Your task to perform on an android device: Clear the cart on ebay.com. Add macbook to the cart on ebay.com Image 0: 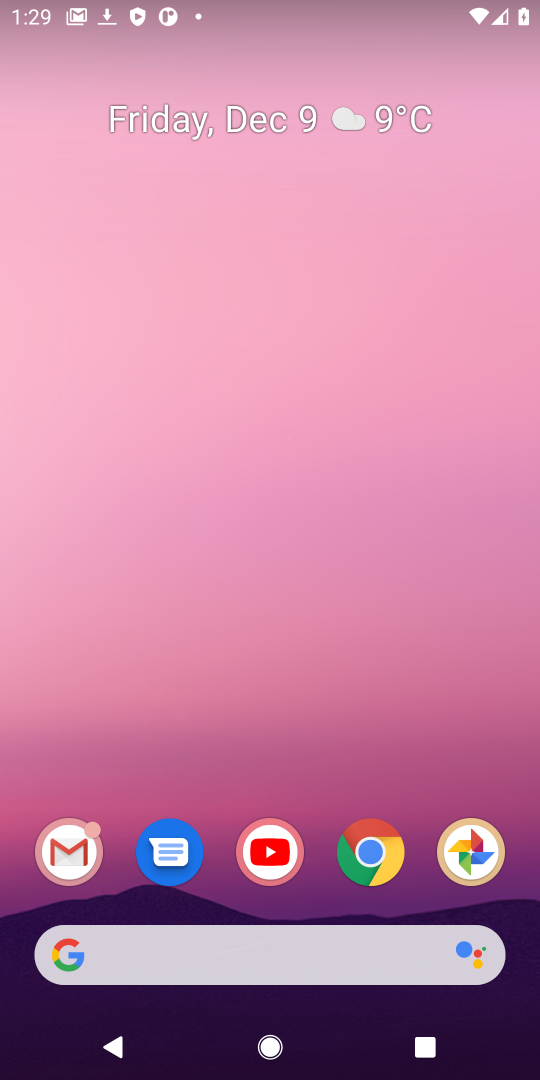
Step 0: click (374, 852)
Your task to perform on an android device: Clear the cart on ebay.com. Add macbook to the cart on ebay.com Image 1: 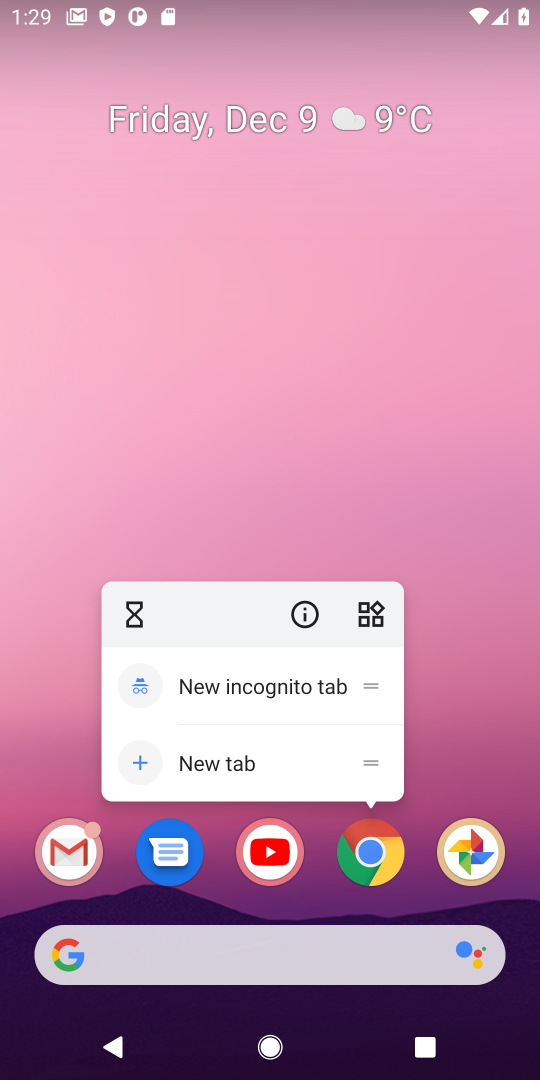
Step 1: click (374, 852)
Your task to perform on an android device: Clear the cart on ebay.com. Add macbook to the cart on ebay.com Image 2: 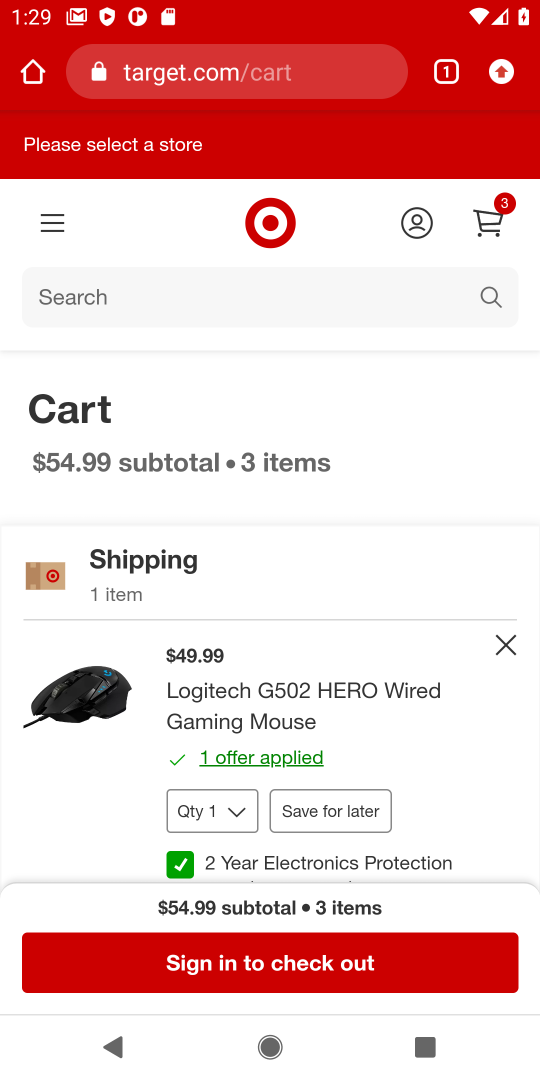
Step 2: click (231, 87)
Your task to perform on an android device: Clear the cart on ebay.com. Add macbook to the cart on ebay.com Image 3: 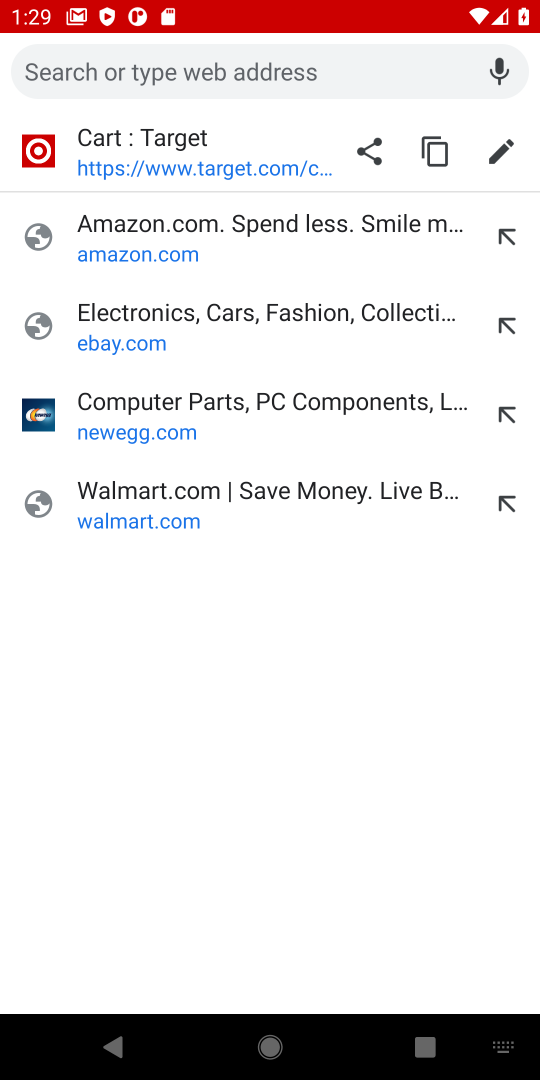
Step 3: click (201, 340)
Your task to perform on an android device: Clear the cart on ebay.com. Add macbook to the cart on ebay.com Image 4: 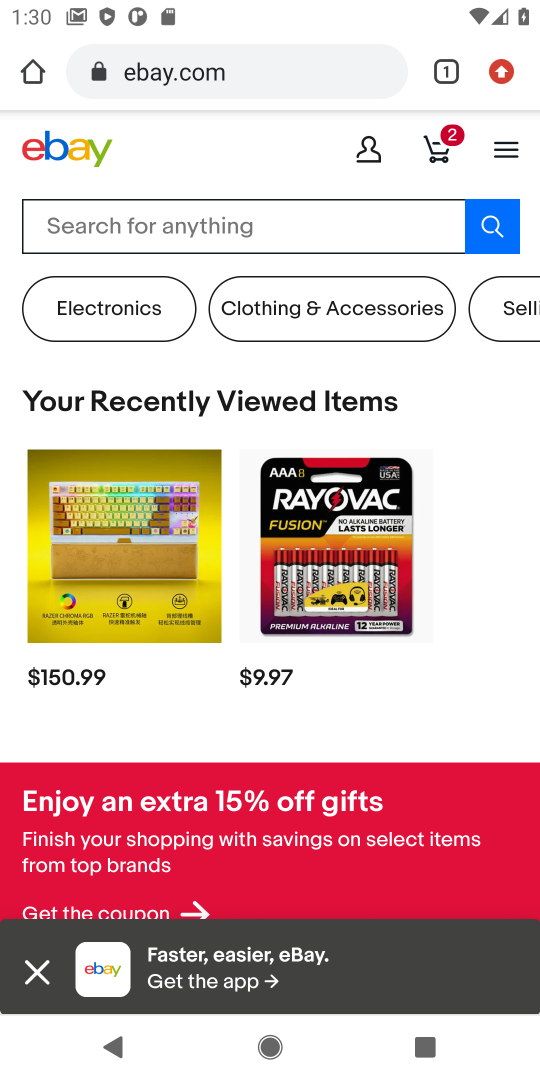
Step 4: click (115, 207)
Your task to perform on an android device: Clear the cart on ebay.com. Add macbook to the cart on ebay.com Image 5: 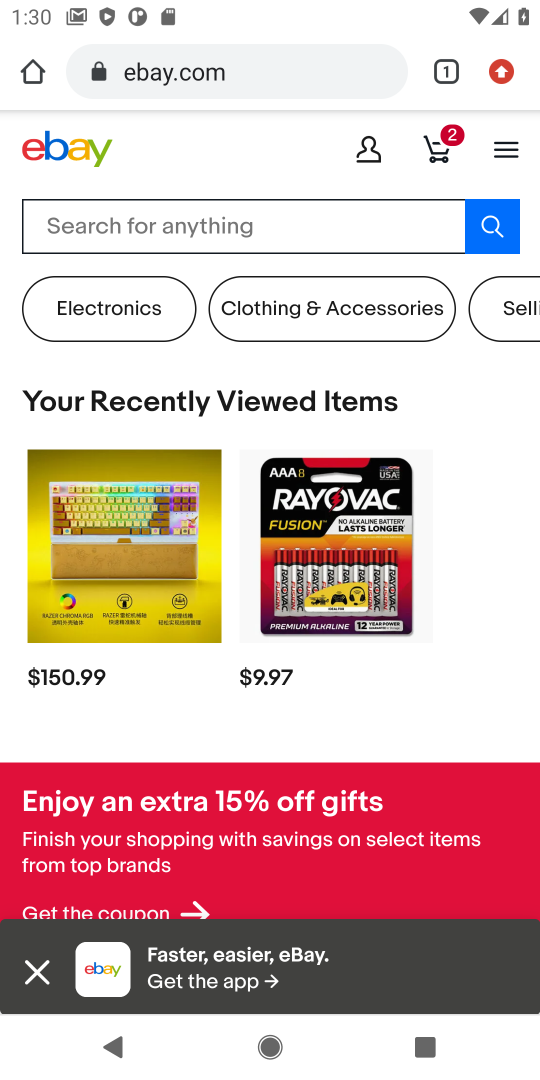
Step 5: click (114, 231)
Your task to perform on an android device: Clear the cart on ebay.com. Add macbook to the cart on ebay.com Image 6: 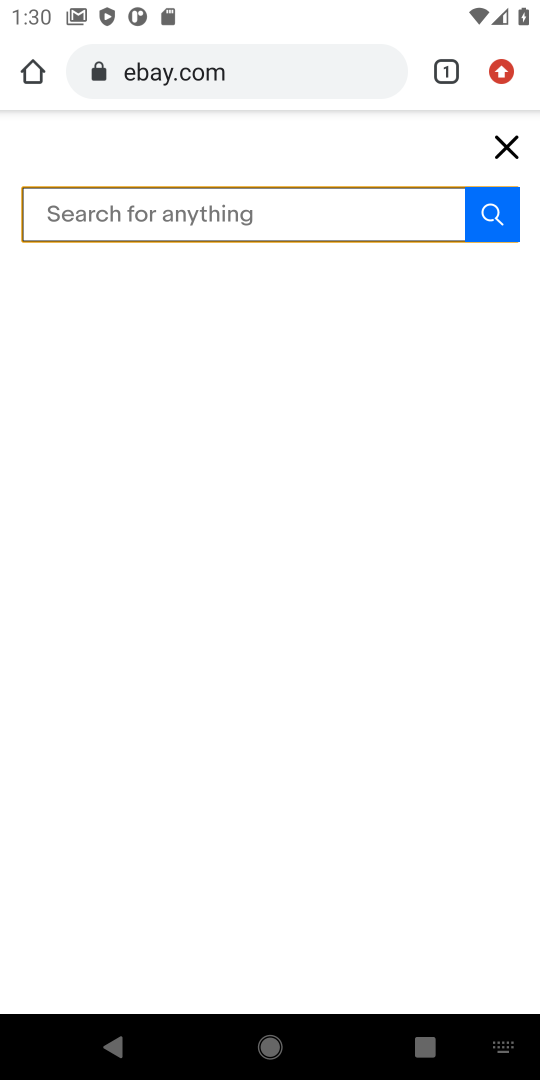
Step 6: type "macbook"
Your task to perform on an android device: Clear the cart on ebay.com. Add macbook to the cart on ebay.com Image 7: 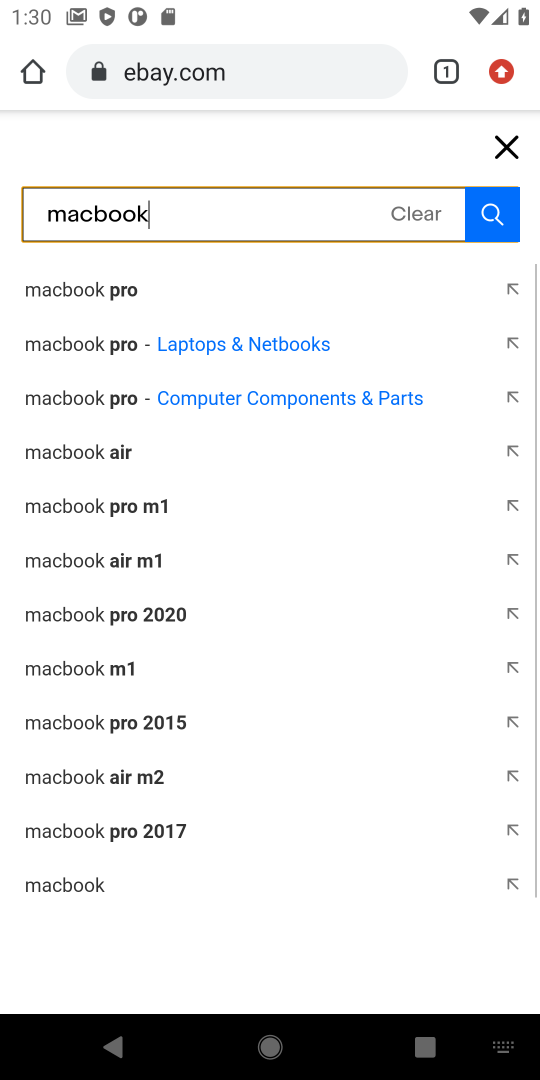
Step 7: press enter
Your task to perform on an android device: Clear the cart on ebay.com. Add macbook to the cart on ebay.com Image 8: 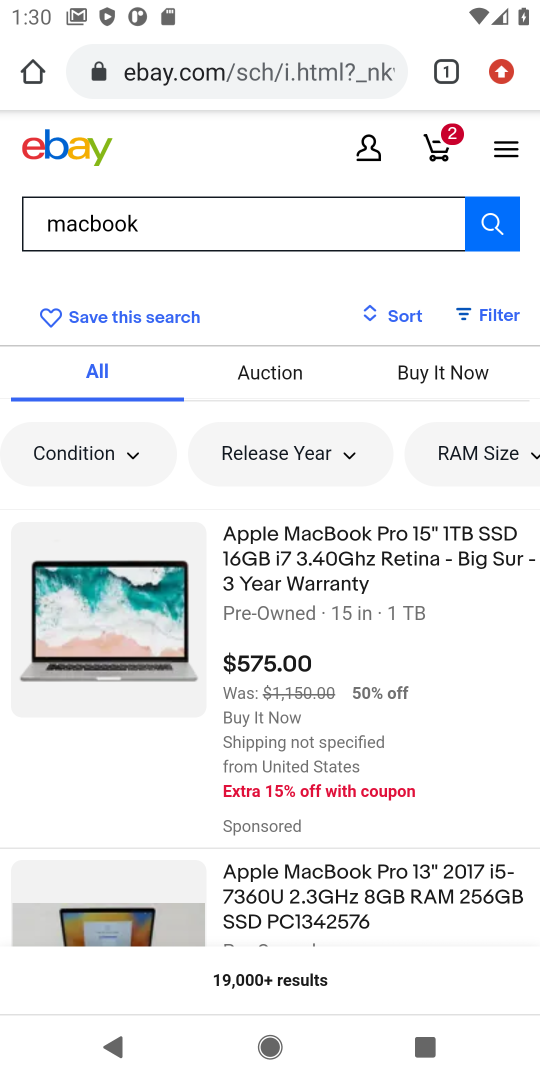
Step 8: click (444, 157)
Your task to perform on an android device: Clear the cart on ebay.com. Add macbook to the cart on ebay.com Image 9: 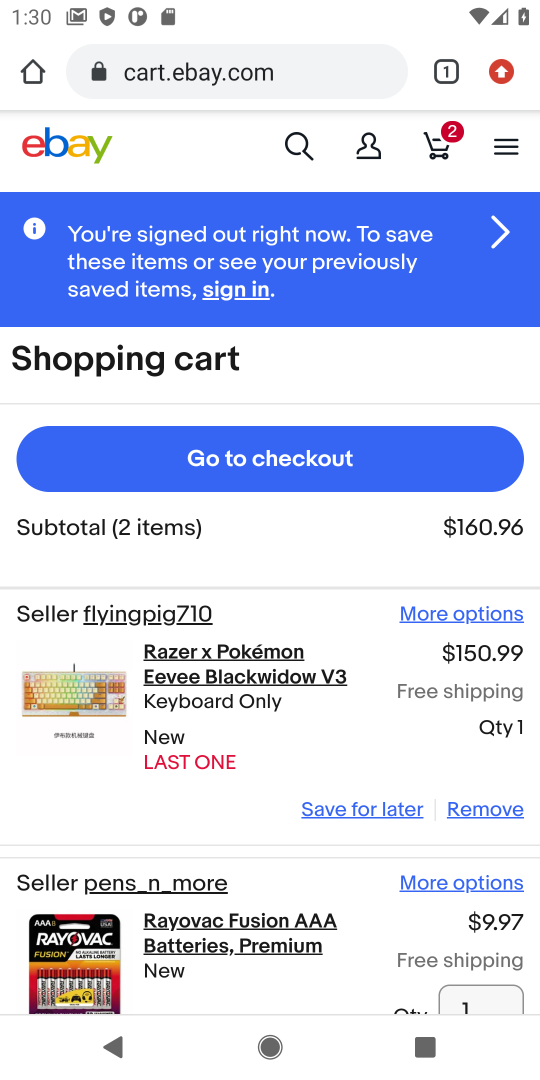
Step 9: drag from (408, 758) to (410, 649)
Your task to perform on an android device: Clear the cart on ebay.com. Add macbook to the cart on ebay.com Image 10: 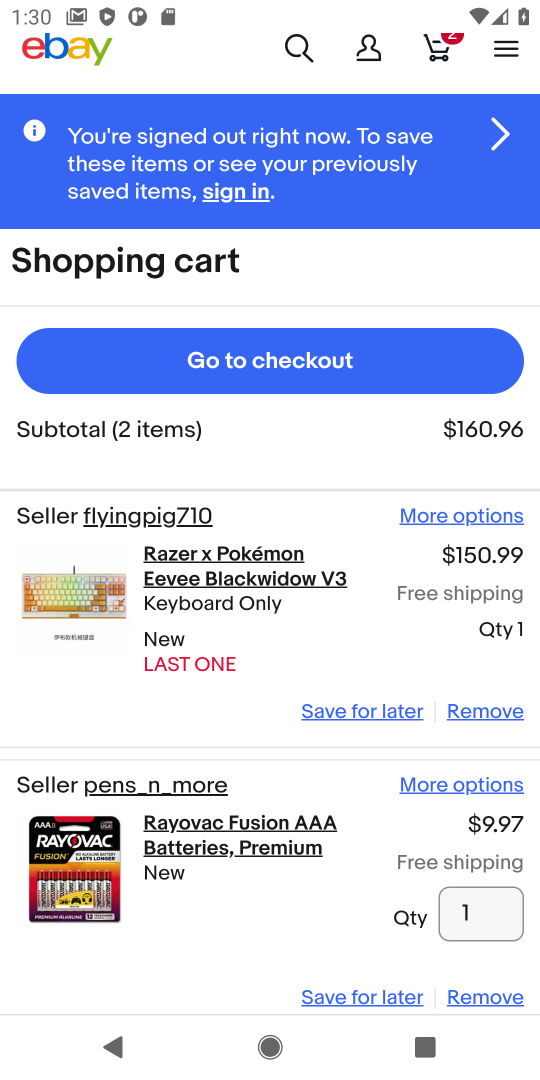
Step 10: click (474, 715)
Your task to perform on an android device: Clear the cart on ebay.com. Add macbook to the cart on ebay.com Image 11: 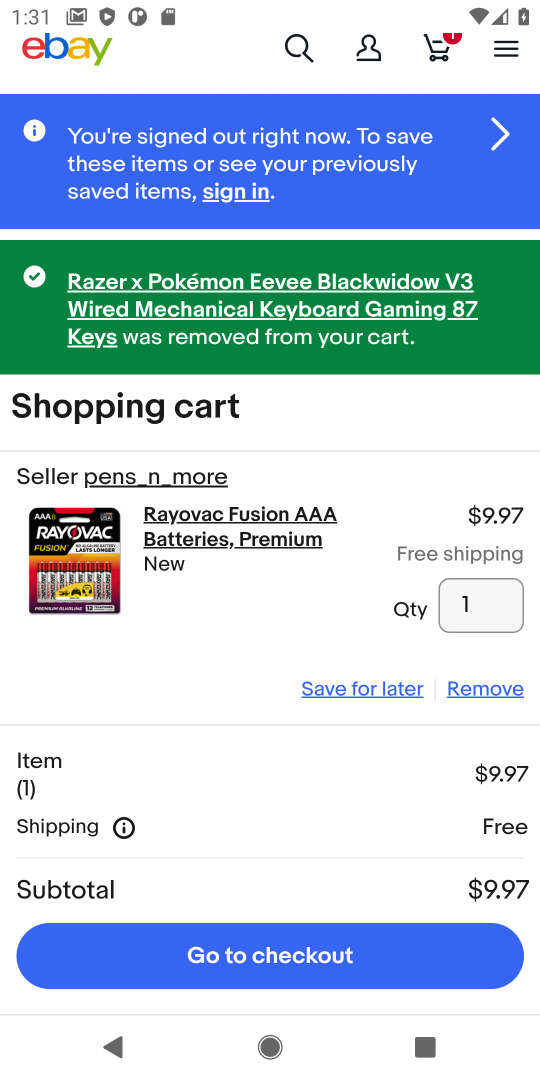
Step 11: click (477, 695)
Your task to perform on an android device: Clear the cart on ebay.com. Add macbook to the cart on ebay.com Image 12: 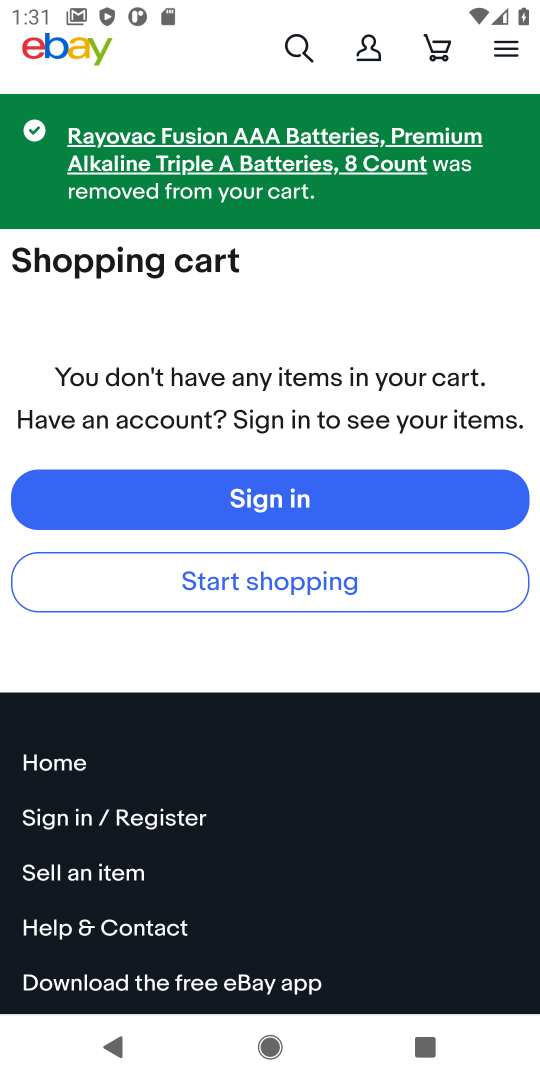
Step 12: click (270, 50)
Your task to perform on an android device: Clear the cart on ebay.com. Add macbook to the cart on ebay.com Image 13: 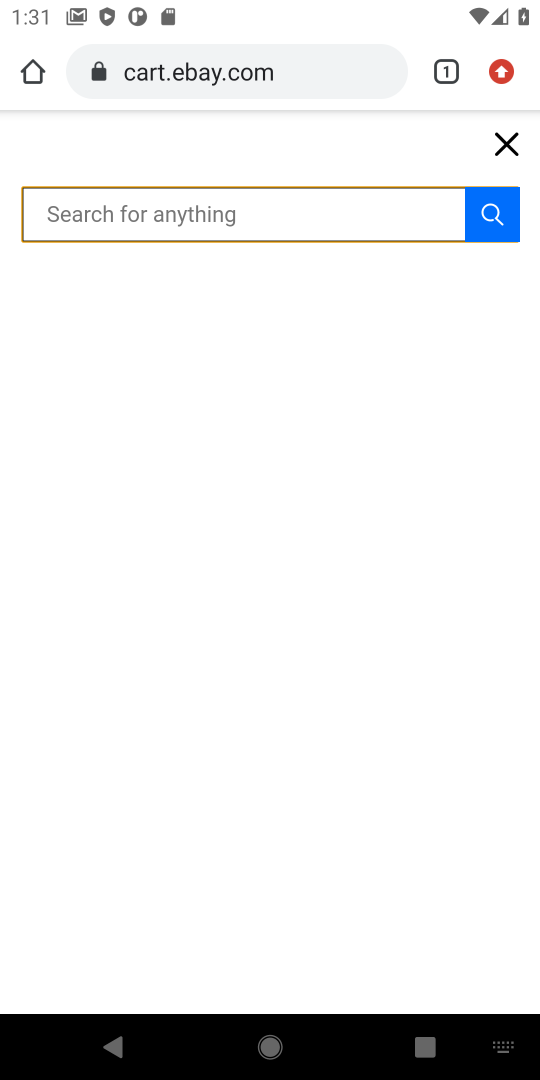
Step 13: type "macbook"
Your task to perform on an android device: Clear the cart on ebay.com. Add macbook to the cart on ebay.com Image 14: 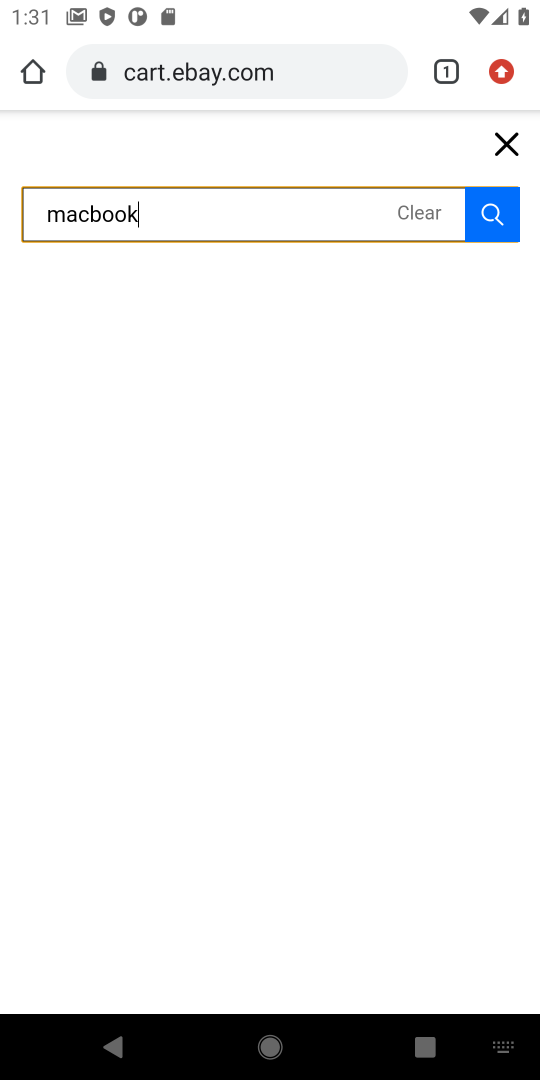
Step 14: click (471, 222)
Your task to perform on an android device: Clear the cart on ebay.com. Add macbook to the cart on ebay.com Image 15: 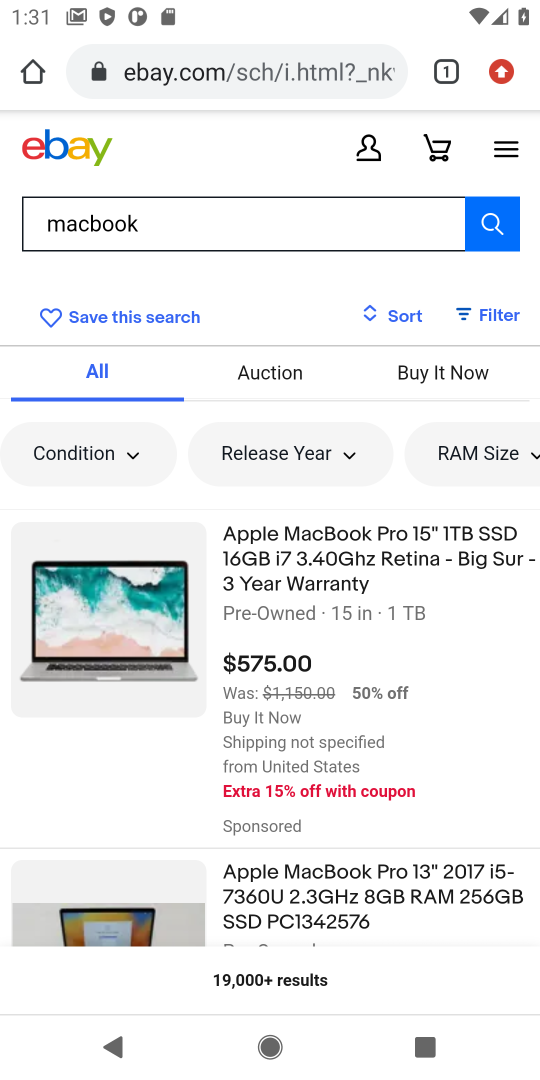
Step 15: click (349, 554)
Your task to perform on an android device: Clear the cart on ebay.com. Add macbook to the cart on ebay.com Image 16: 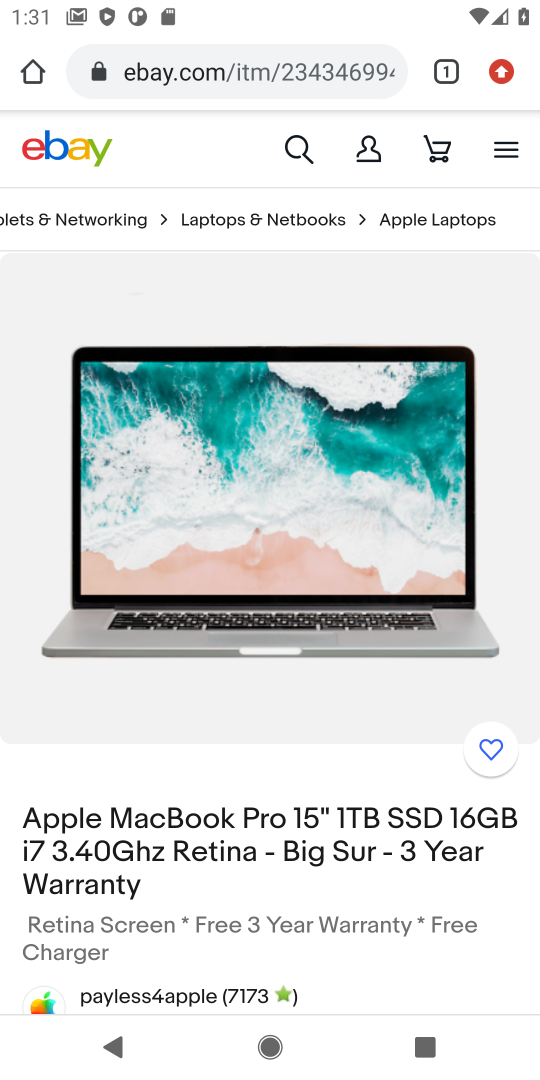
Step 16: drag from (367, 950) to (304, 377)
Your task to perform on an android device: Clear the cart on ebay.com. Add macbook to the cart on ebay.com Image 17: 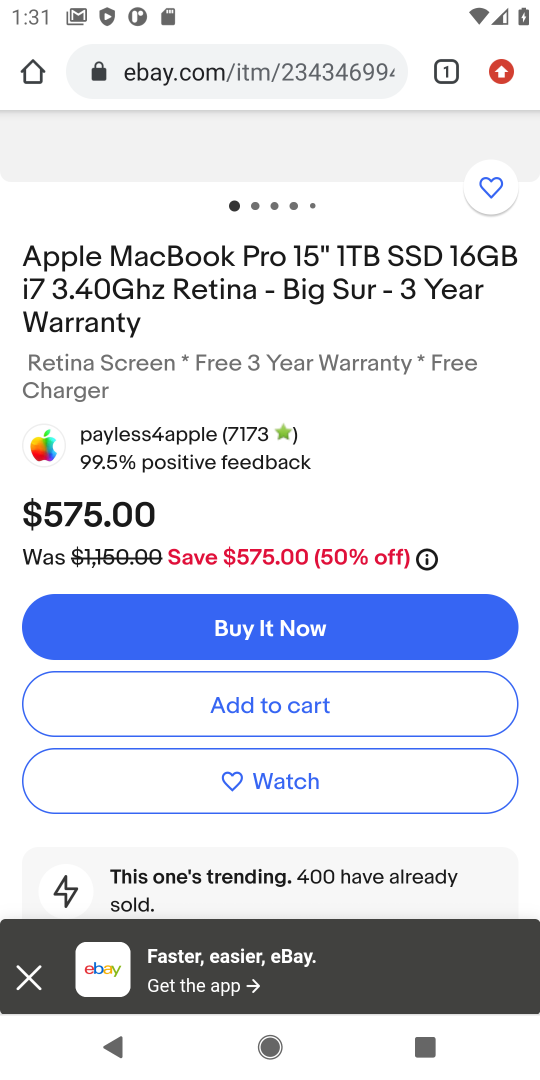
Step 17: click (268, 717)
Your task to perform on an android device: Clear the cart on ebay.com. Add macbook to the cart on ebay.com Image 18: 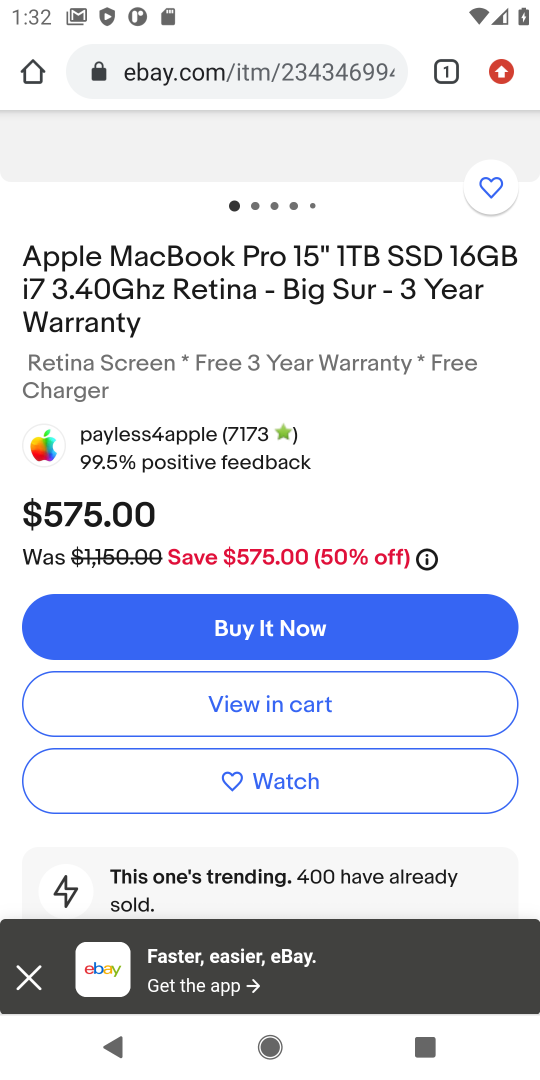
Step 18: task complete